Your task to perform on an android device: choose inbox layout in the gmail app Image 0: 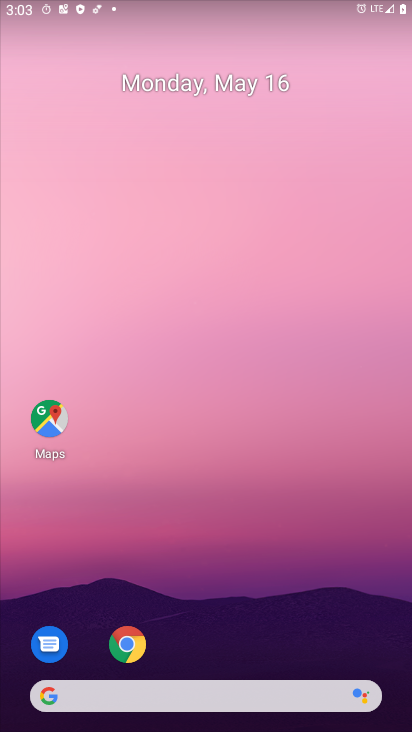
Step 0: drag from (242, 656) to (250, 80)
Your task to perform on an android device: choose inbox layout in the gmail app Image 1: 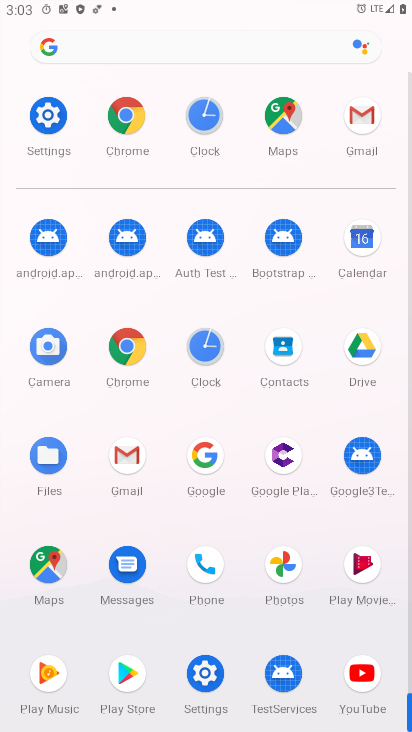
Step 1: click (125, 463)
Your task to perform on an android device: choose inbox layout in the gmail app Image 2: 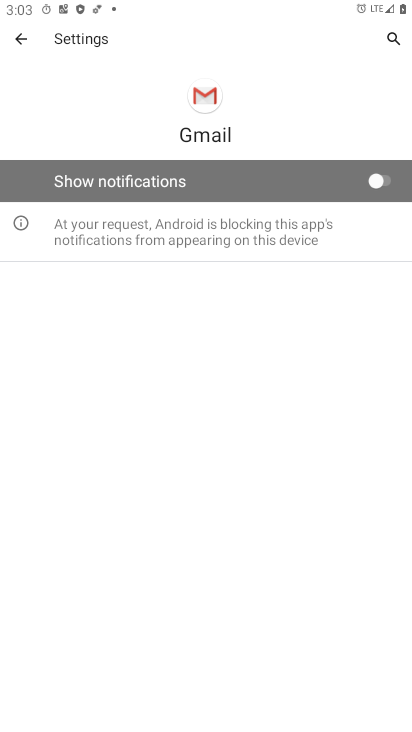
Step 2: click (0, 46)
Your task to perform on an android device: choose inbox layout in the gmail app Image 3: 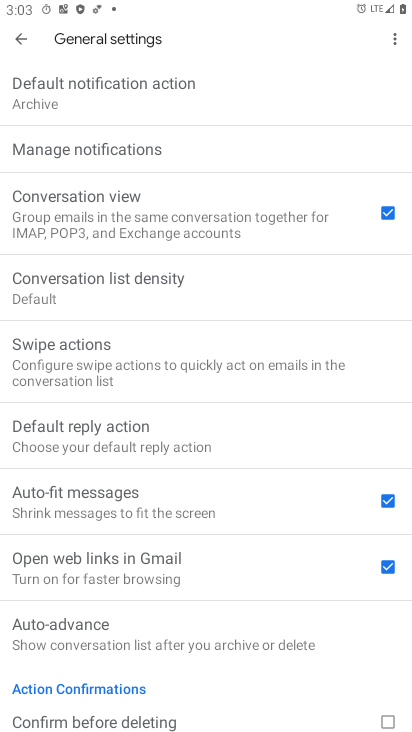
Step 3: drag from (210, 552) to (261, 265)
Your task to perform on an android device: choose inbox layout in the gmail app Image 4: 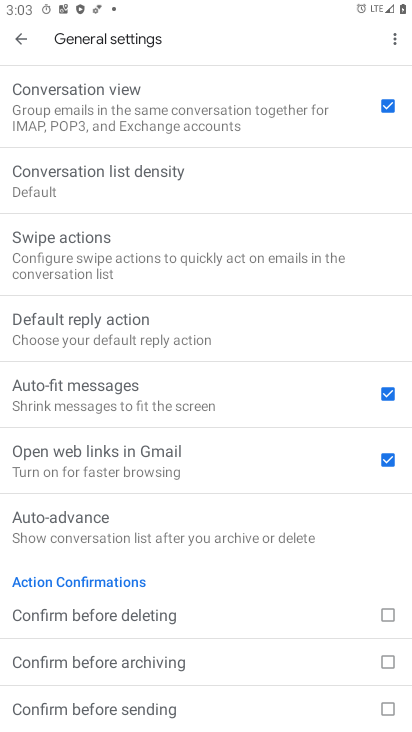
Step 4: drag from (208, 607) to (239, 303)
Your task to perform on an android device: choose inbox layout in the gmail app Image 5: 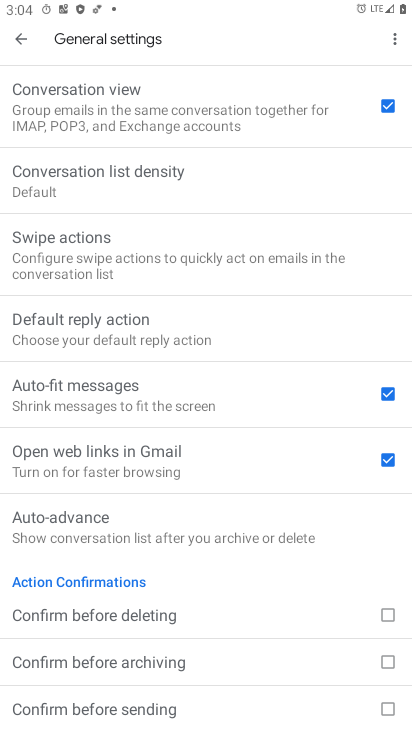
Step 5: drag from (239, 334) to (206, 579)
Your task to perform on an android device: choose inbox layout in the gmail app Image 6: 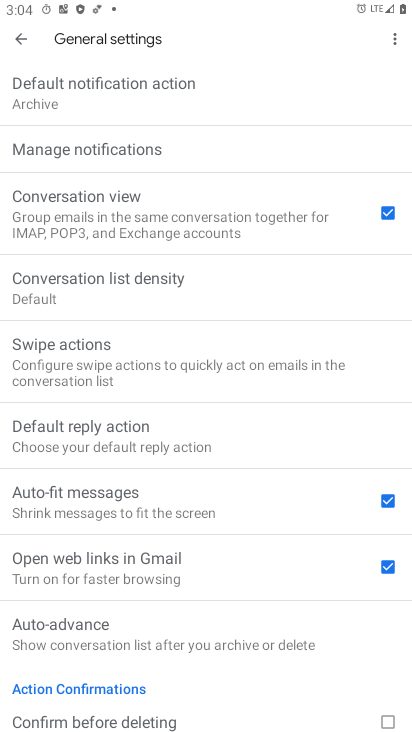
Step 6: click (23, 45)
Your task to perform on an android device: choose inbox layout in the gmail app Image 7: 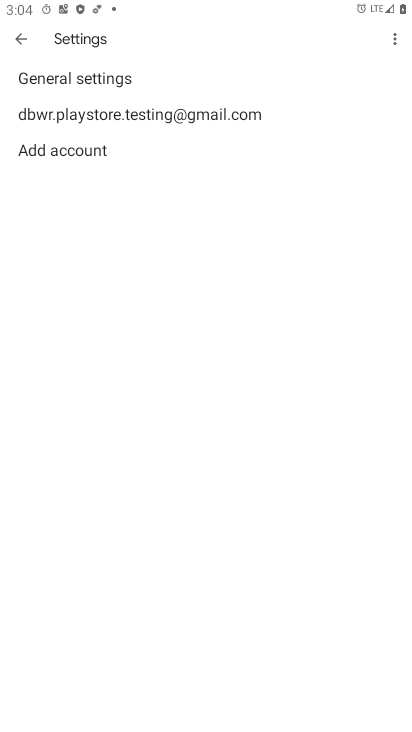
Step 7: click (93, 110)
Your task to perform on an android device: choose inbox layout in the gmail app Image 8: 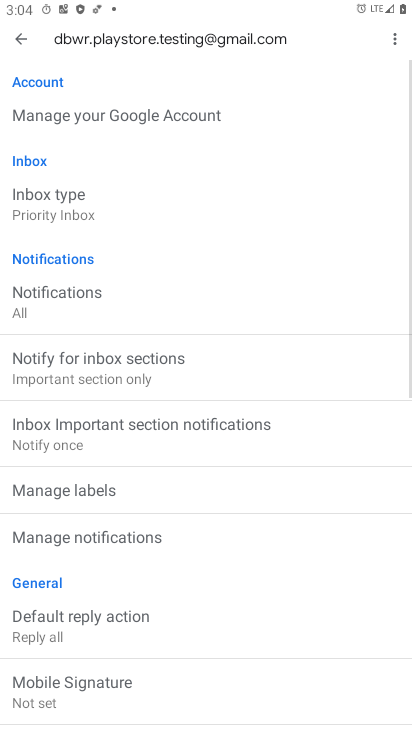
Step 8: task complete